Your task to perform on an android device: open a new tab in the chrome app Image 0: 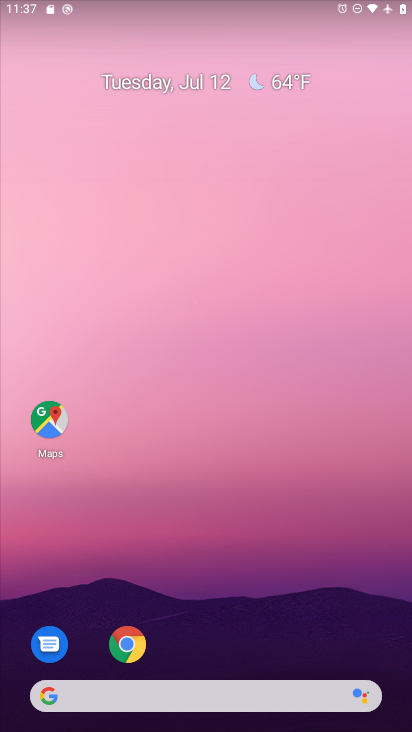
Step 0: drag from (202, 647) to (219, 270)
Your task to perform on an android device: open a new tab in the chrome app Image 1: 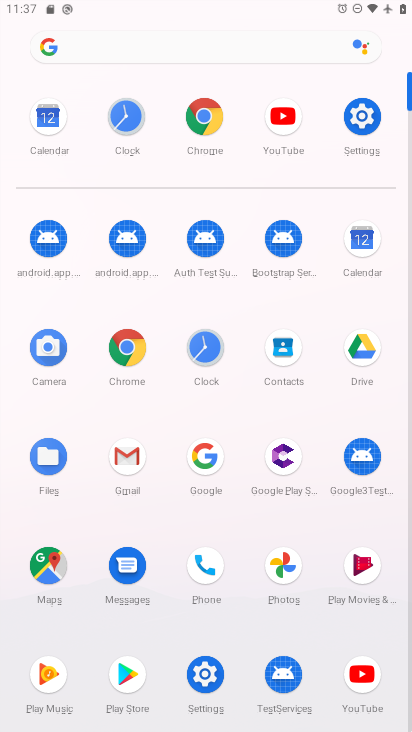
Step 1: click (218, 136)
Your task to perform on an android device: open a new tab in the chrome app Image 2: 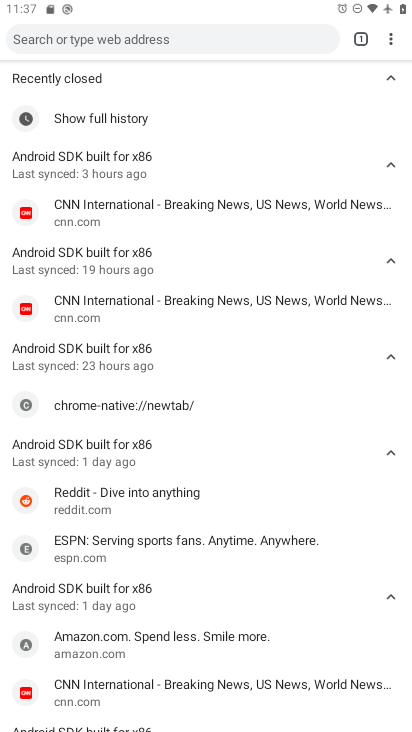
Step 2: click (361, 37)
Your task to perform on an android device: open a new tab in the chrome app Image 3: 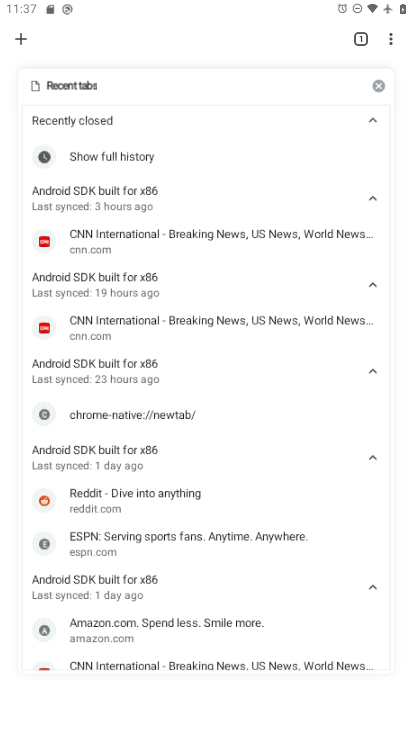
Step 3: click (31, 50)
Your task to perform on an android device: open a new tab in the chrome app Image 4: 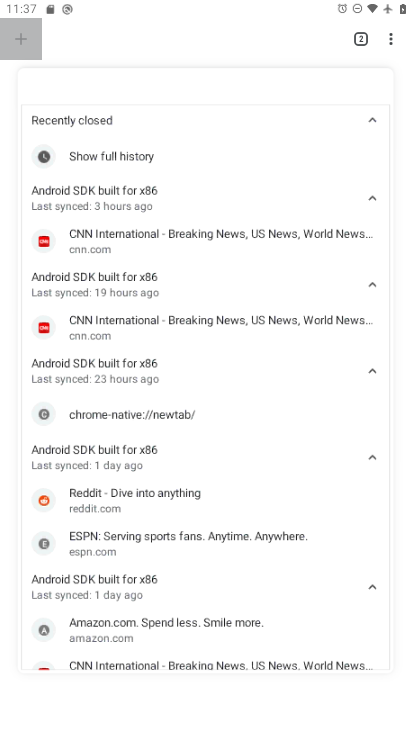
Step 4: task complete